Your task to perform on an android device: Open the Play Movies app and select the watchlist tab. Image 0: 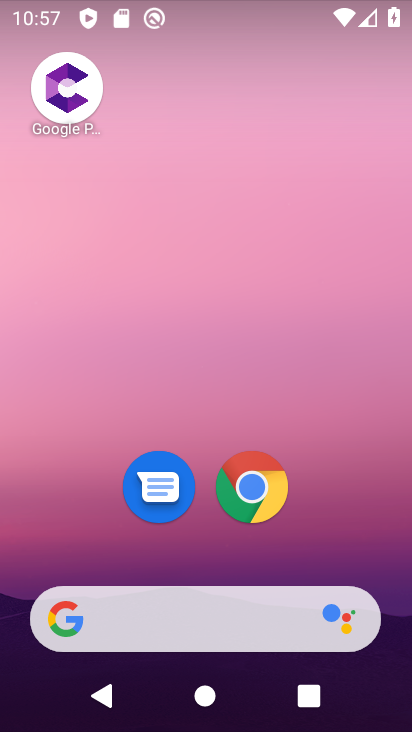
Step 0: drag from (16, 600) to (254, 165)
Your task to perform on an android device: Open the Play Movies app and select the watchlist tab. Image 1: 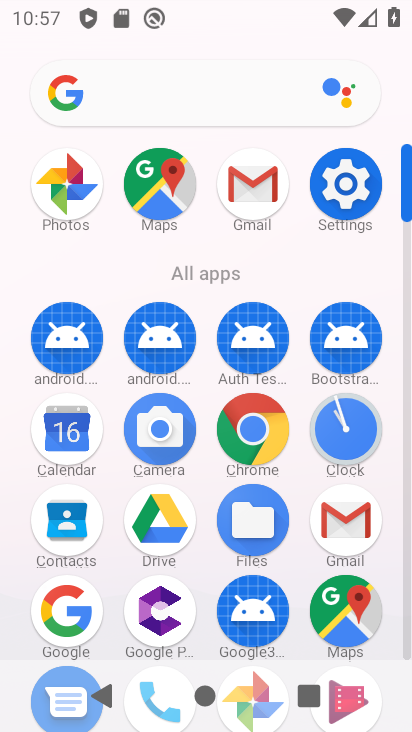
Step 1: drag from (22, 596) to (219, 174)
Your task to perform on an android device: Open the Play Movies app and select the watchlist tab. Image 2: 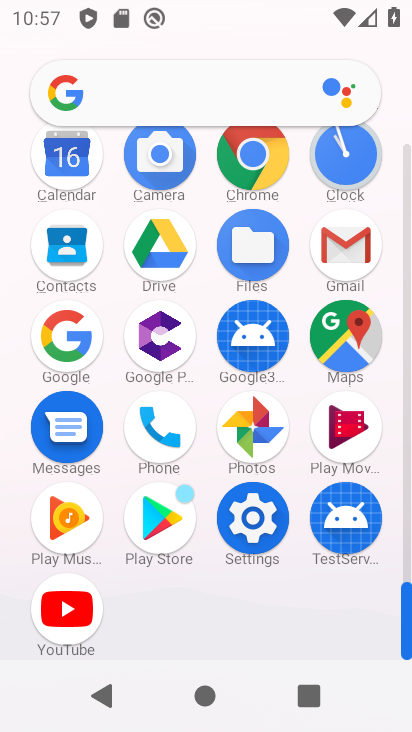
Step 2: click (317, 425)
Your task to perform on an android device: Open the Play Movies app and select the watchlist tab. Image 3: 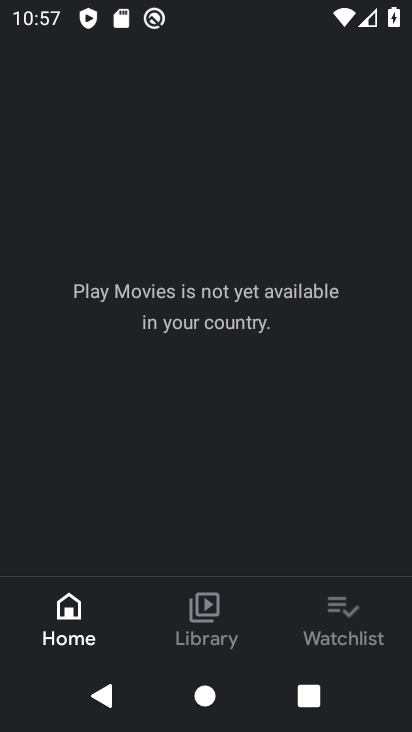
Step 3: click (350, 606)
Your task to perform on an android device: Open the Play Movies app and select the watchlist tab. Image 4: 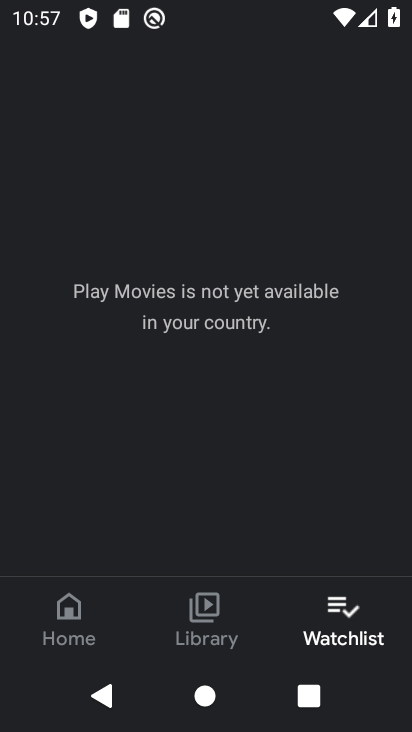
Step 4: task complete